Your task to perform on an android device: install app "Spotify: Music and Podcasts" Image 0: 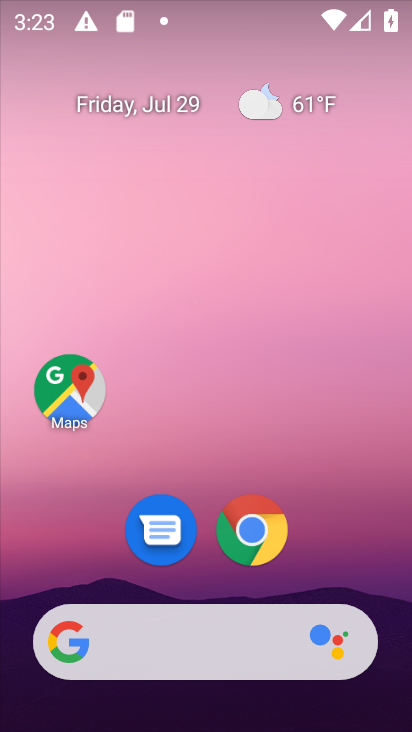
Step 0: drag from (334, 484) to (308, 2)
Your task to perform on an android device: install app "Spotify: Music and Podcasts" Image 1: 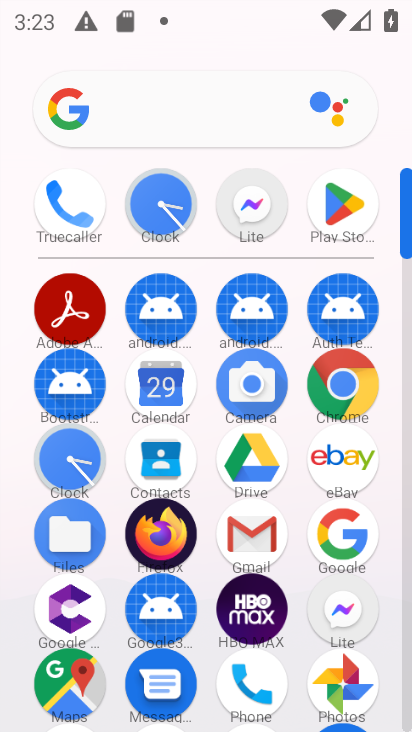
Step 1: click (339, 210)
Your task to perform on an android device: install app "Spotify: Music and Podcasts" Image 2: 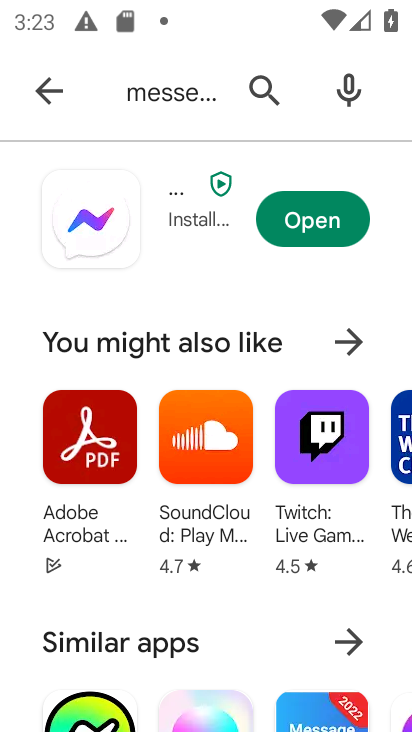
Step 2: click (257, 83)
Your task to perform on an android device: install app "Spotify: Music and Podcasts" Image 3: 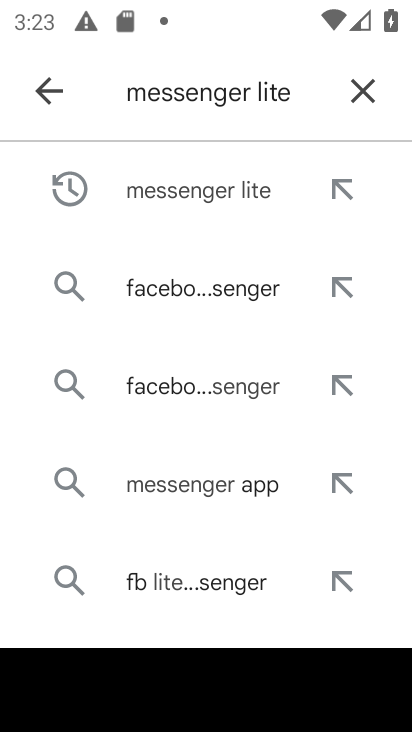
Step 3: click (352, 101)
Your task to perform on an android device: install app "Spotify: Music and Podcasts" Image 4: 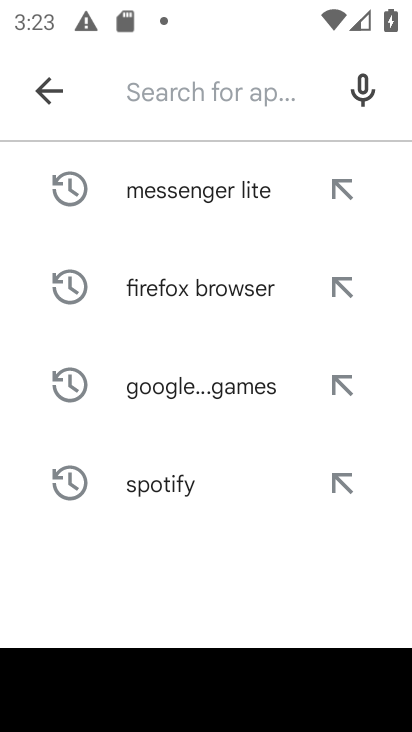
Step 4: type "Spotify: Music and Podcasts"
Your task to perform on an android device: install app "Spotify: Music and Podcasts" Image 5: 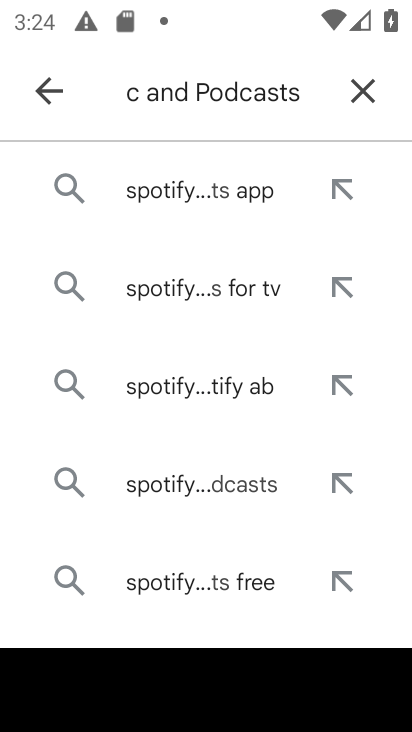
Step 5: click (178, 494)
Your task to perform on an android device: install app "Spotify: Music and Podcasts" Image 6: 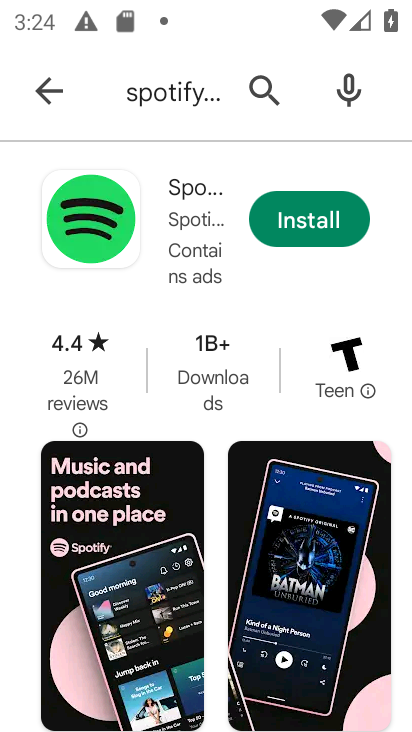
Step 6: click (309, 220)
Your task to perform on an android device: install app "Spotify: Music and Podcasts" Image 7: 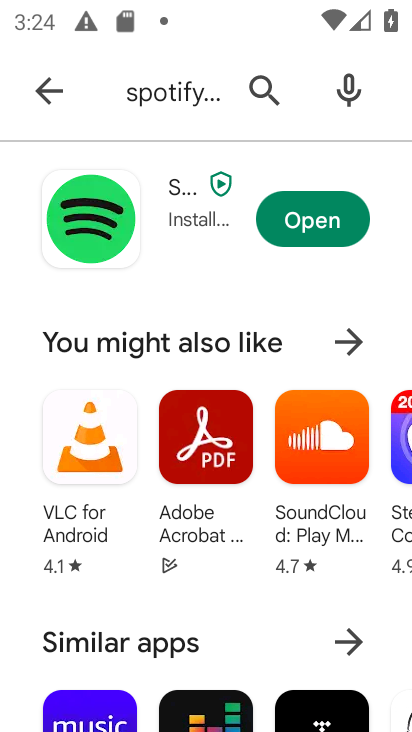
Step 7: task complete